Your task to perform on an android device: turn off notifications settings in the gmail app Image 0: 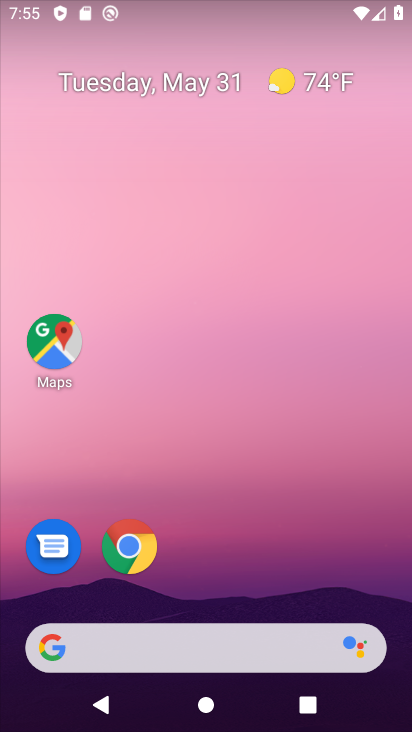
Step 0: drag from (196, 561) to (303, 72)
Your task to perform on an android device: turn off notifications settings in the gmail app Image 1: 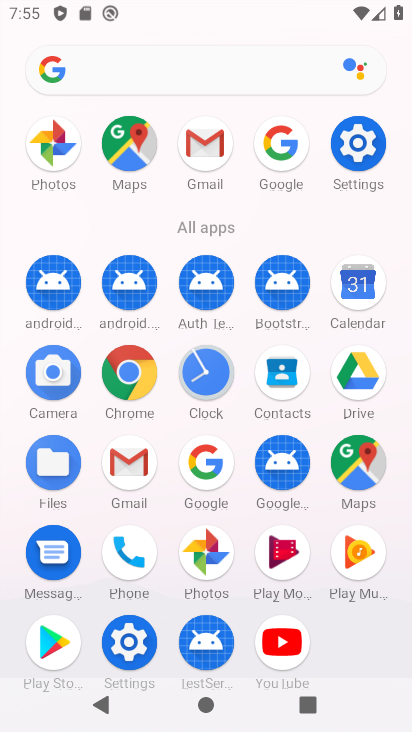
Step 1: click (210, 138)
Your task to perform on an android device: turn off notifications settings in the gmail app Image 2: 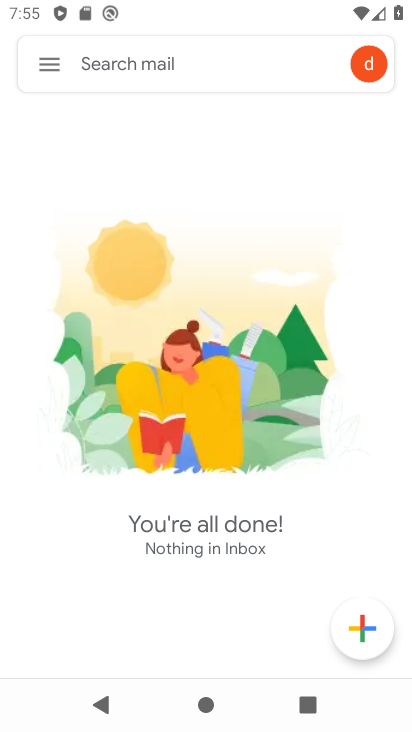
Step 2: click (61, 72)
Your task to perform on an android device: turn off notifications settings in the gmail app Image 3: 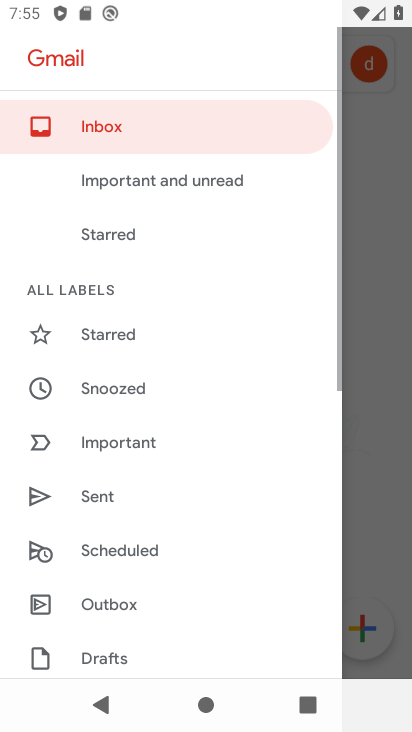
Step 3: drag from (140, 609) to (193, 104)
Your task to perform on an android device: turn off notifications settings in the gmail app Image 4: 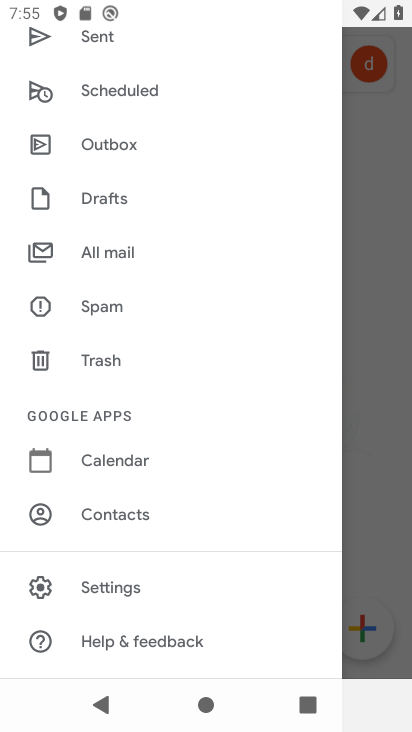
Step 4: click (109, 571)
Your task to perform on an android device: turn off notifications settings in the gmail app Image 5: 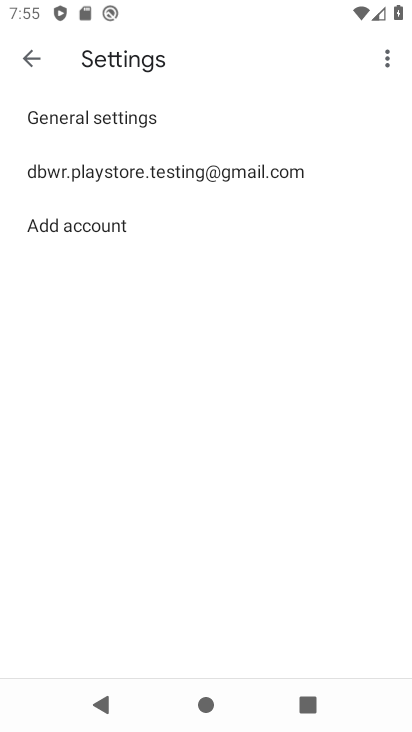
Step 5: drag from (127, 220) to (289, 94)
Your task to perform on an android device: turn off notifications settings in the gmail app Image 6: 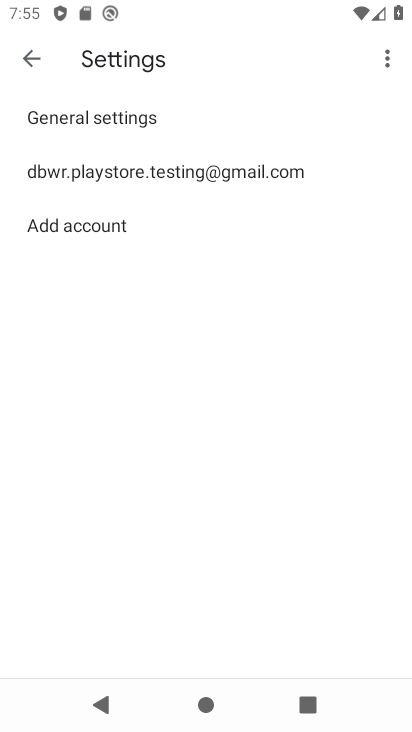
Step 6: click (127, 156)
Your task to perform on an android device: turn off notifications settings in the gmail app Image 7: 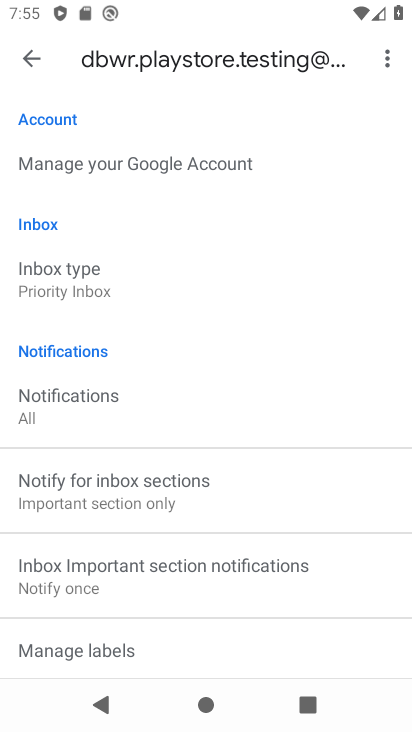
Step 7: click (101, 420)
Your task to perform on an android device: turn off notifications settings in the gmail app Image 8: 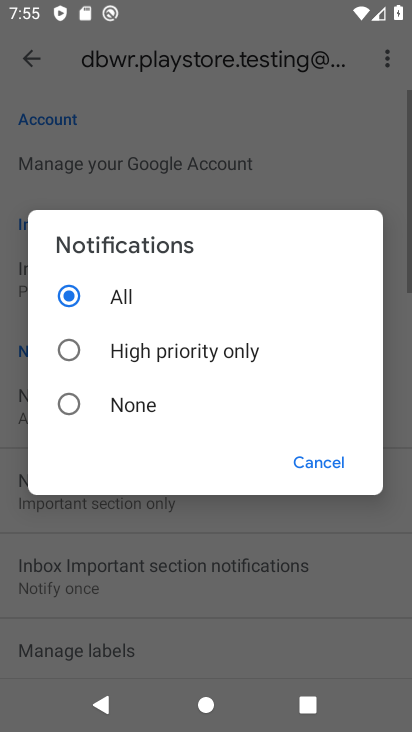
Step 8: click (105, 424)
Your task to perform on an android device: turn off notifications settings in the gmail app Image 9: 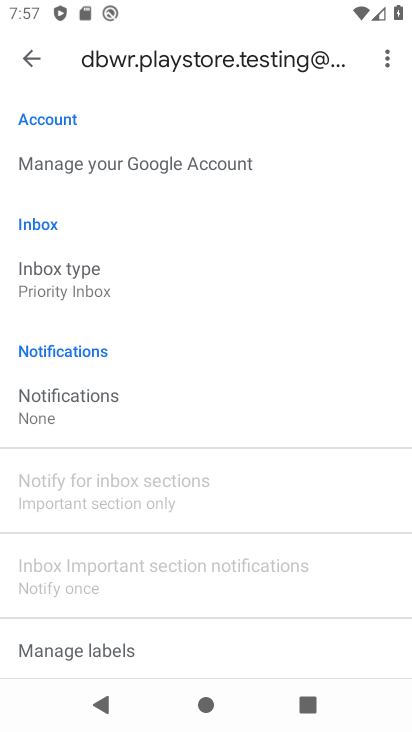
Step 9: task complete